Your task to perform on an android device: turn off data saver in the chrome app Image 0: 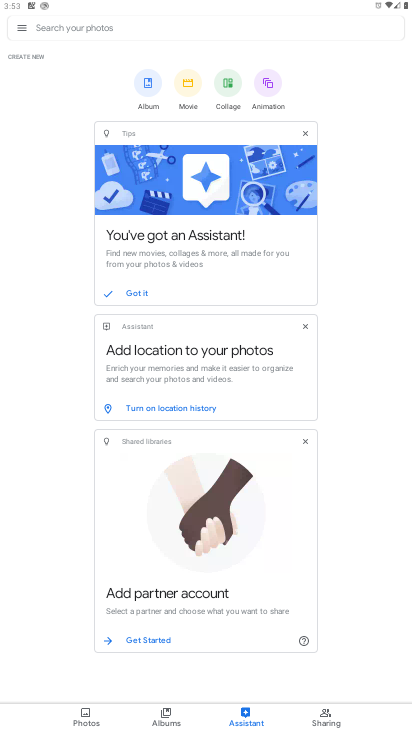
Step 0: press home button
Your task to perform on an android device: turn off data saver in the chrome app Image 1: 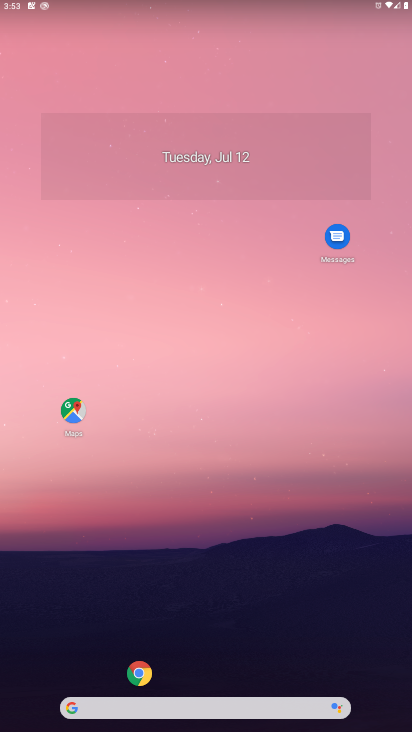
Step 1: click (138, 667)
Your task to perform on an android device: turn off data saver in the chrome app Image 2: 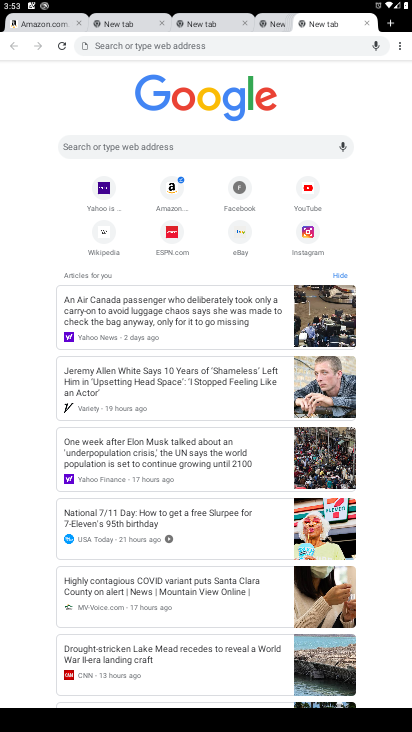
Step 2: click (402, 45)
Your task to perform on an android device: turn off data saver in the chrome app Image 3: 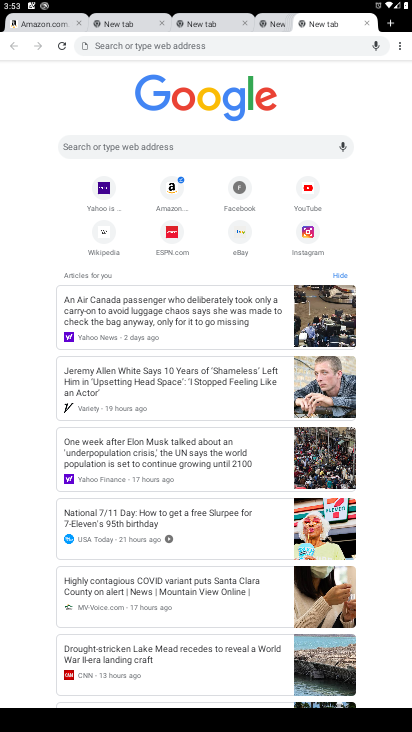
Step 3: task complete